Your task to perform on an android device: Open the map Image 0: 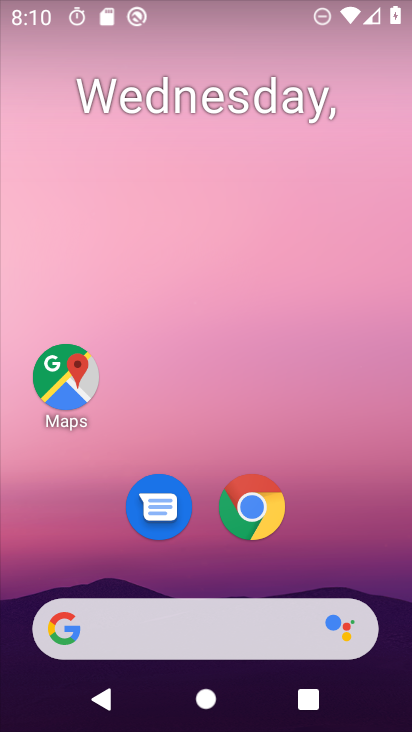
Step 0: drag from (329, 638) to (308, 214)
Your task to perform on an android device: Open the map Image 1: 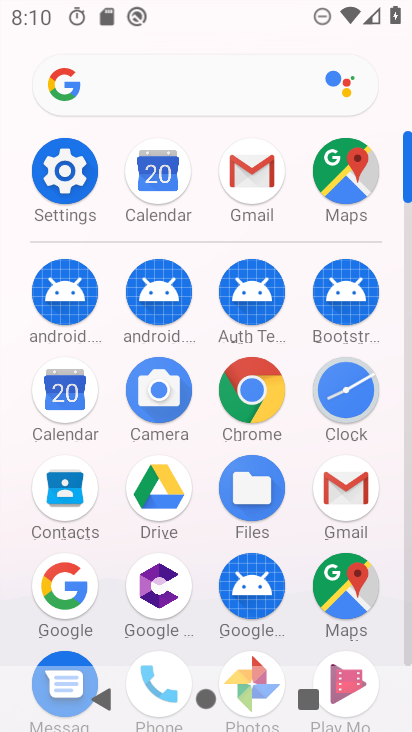
Step 1: click (343, 167)
Your task to perform on an android device: Open the map Image 2: 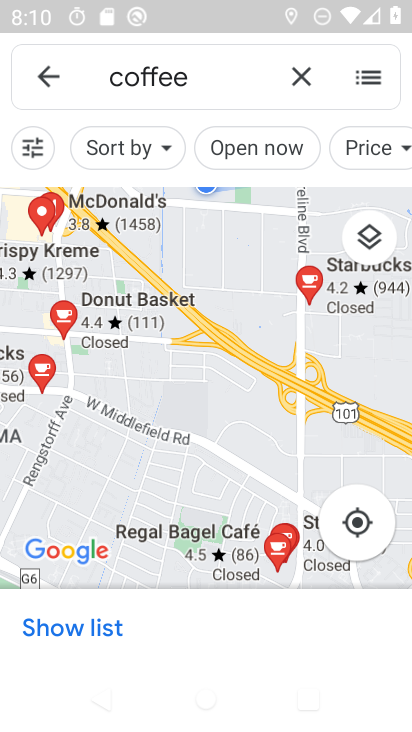
Step 2: click (51, 70)
Your task to perform on an android device: Open the map Image 3: 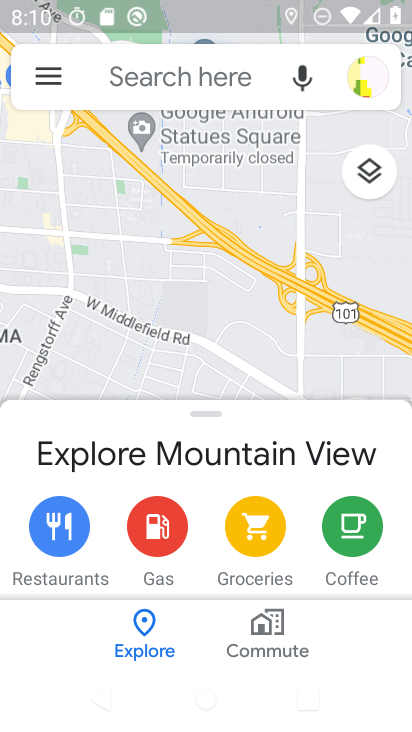
Step 3: click (276, 318)
Your task to perform on an android device: Open the map Image 4: 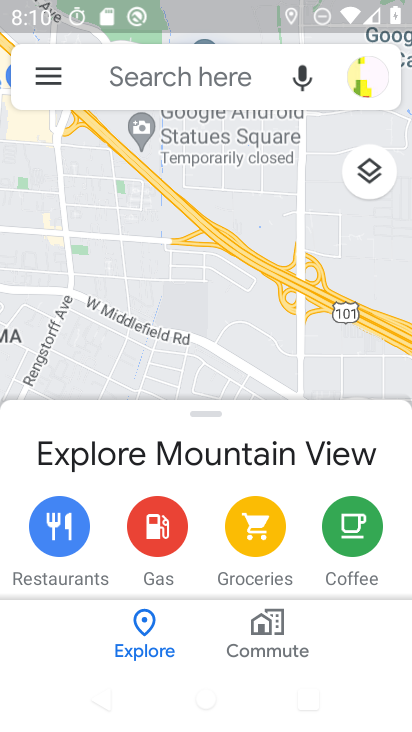
Step 4: click (239, 349)
Your task to perform on an android device: Open the map Image 5: 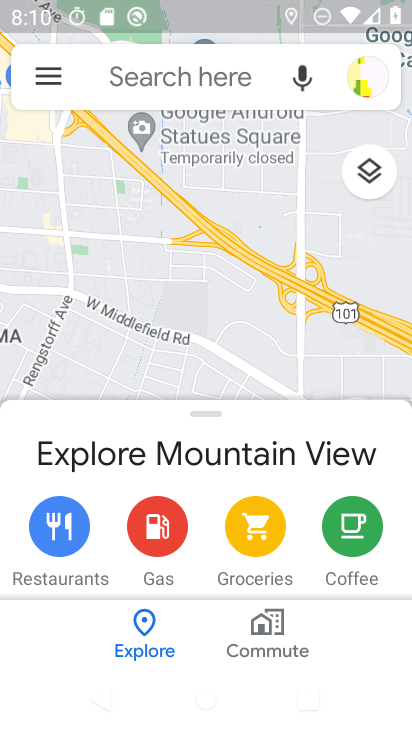
Step 5: task complete